Your task to perform on an android device: change the clock style Image 0: 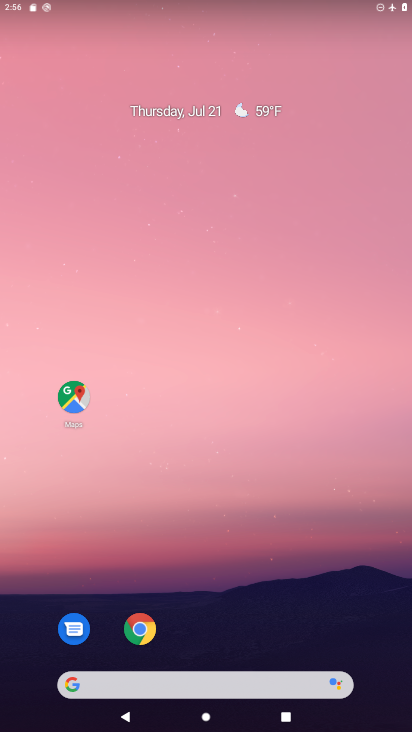
Step 0: drag from (230, 632) to (232, 48)
Your task to perform on an android device: change the clock style Image 1: 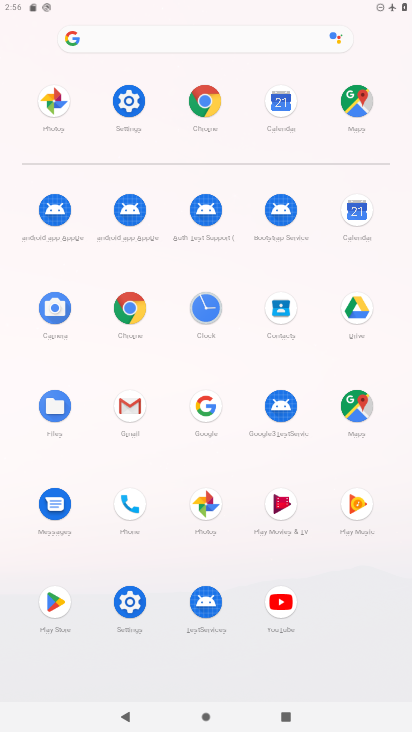
Step 1: click (209, 312)
Your task to perform on an android device: change the clock style Image 2: 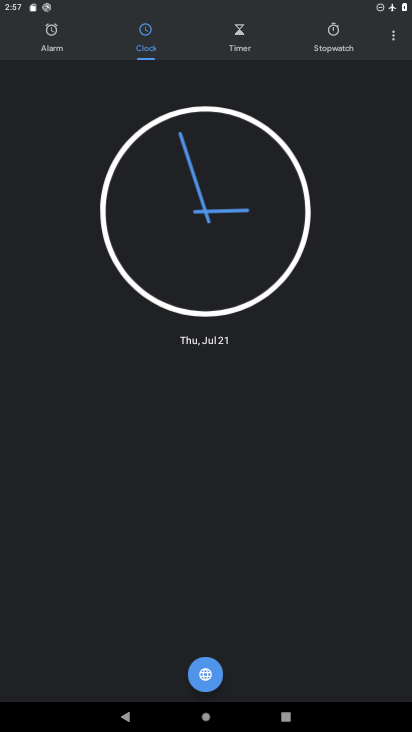
Step 2: click (393, 37)
Your task to perform on an android device: change the clock style Image 3: 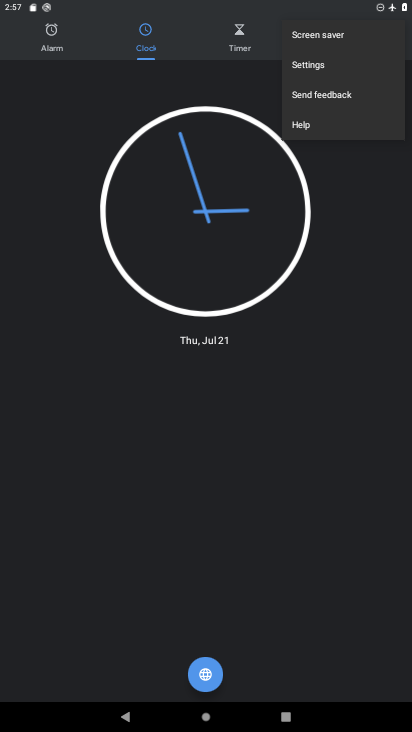
Step 3: click (311, 64)
Your task to perform on an android device: change the clock style Image 4: 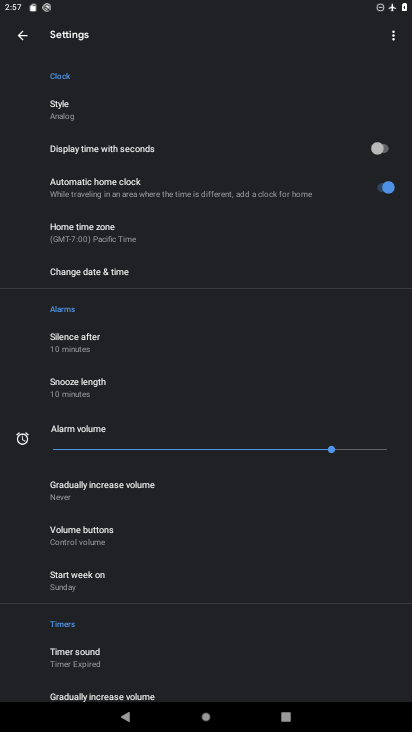
Step 4: click (62, 113)
Your task to perform on an android device: change the clock style Image 5: 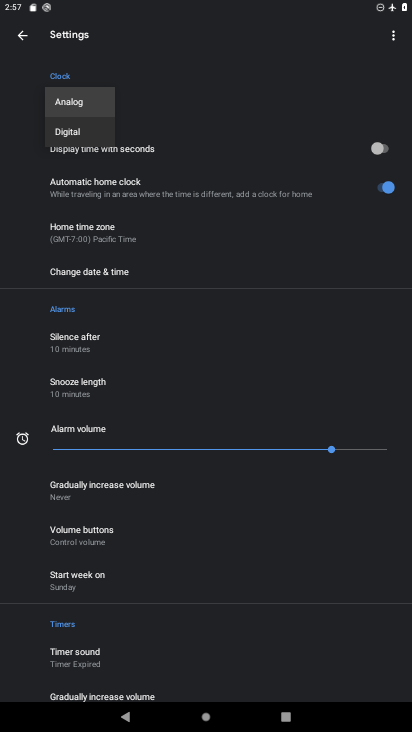
Step 5: click (75, 101)
Your task to perform on an android device: change the clock style Image 6: 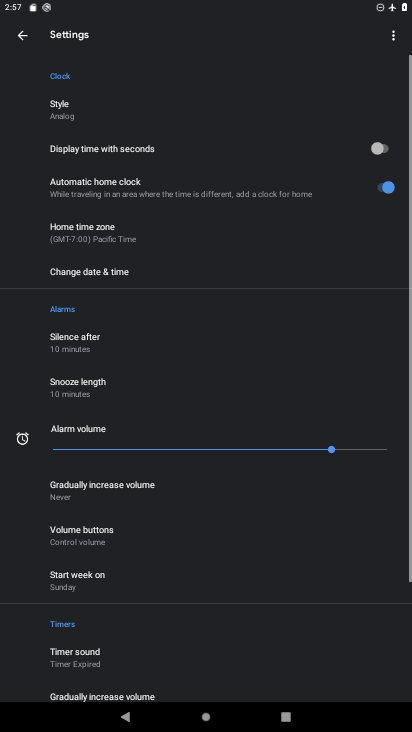
Step 6: task complete